Your task to perform on an android device: manage bookmarks in the chrome app Image 0: 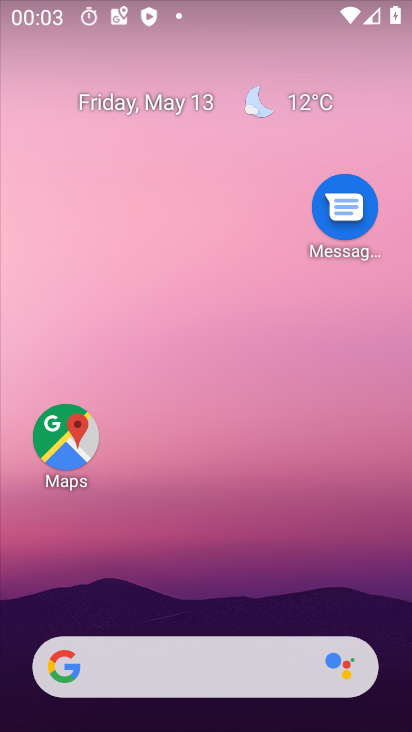
Step 0: drag from (294, 566) to (281, 63)
Your task to perform on an android device: manage bookmarks in the chrome app Image 1: 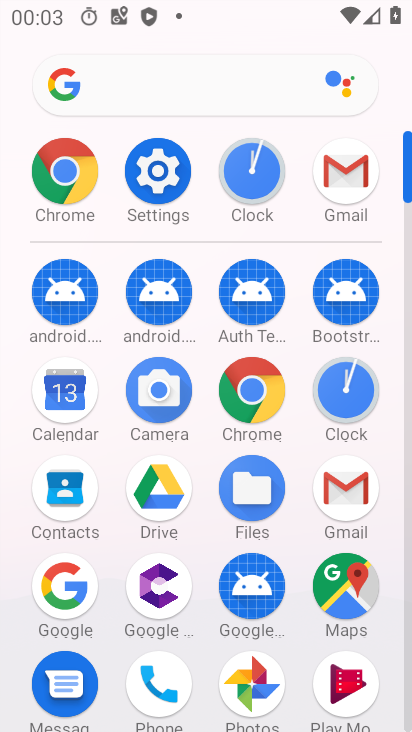
Step 1: click (251, 387)
Your task to perform on an android device: manage bookmarks in the chrome app Image 2: 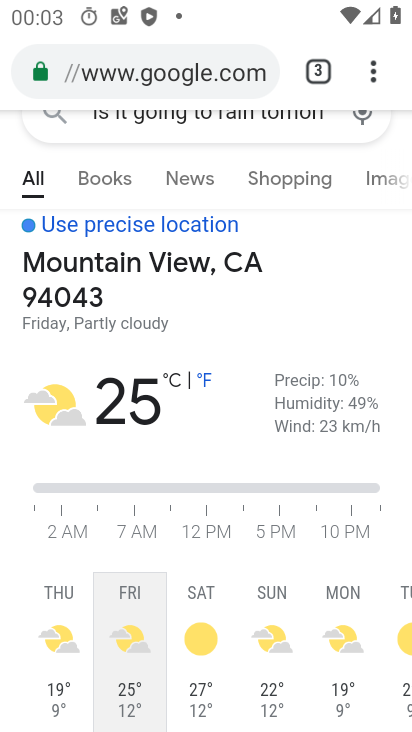
Step 2: task complete